Your task to perform on an android device: Open Google Chrome and click the shortcut for Amazon.com Image 0: 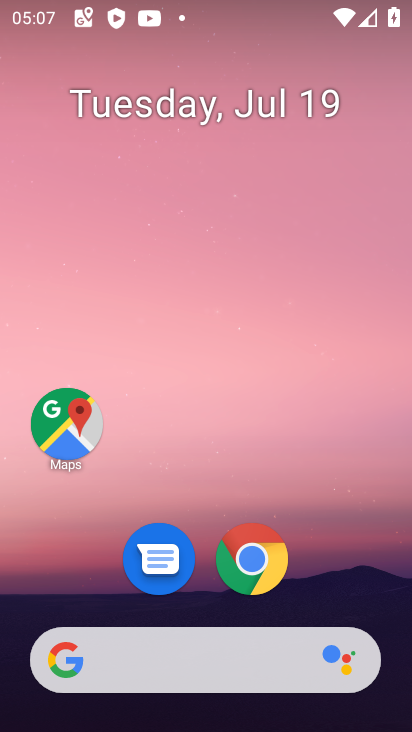
Step 0: click (252, 564)
Your task to perform on an android device: Open Google Chrome and click the shortcut for Amazon.com Image 1: 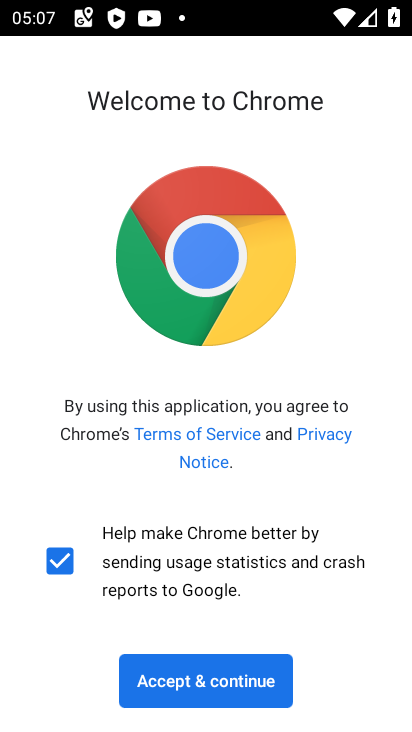
Step 1: click (214, 681)
Your task to perform on an android device: Open Google Chrome and click the shortcut for Amazon.com Image 2: 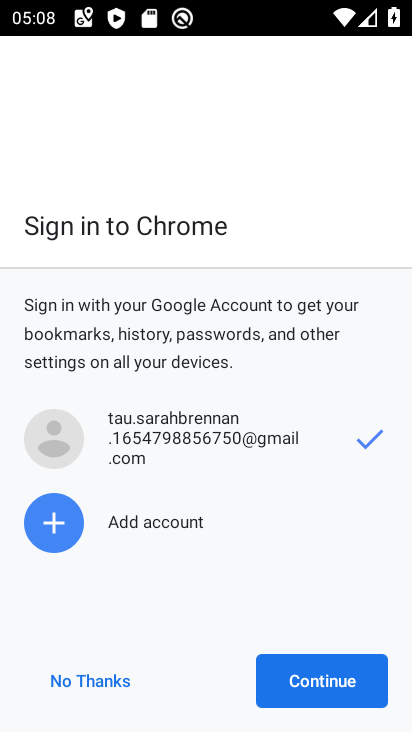
Step 2: click (313, 676)
Your task to perform on an android device: Open Google Chrome and click the shortcut for Amazon.com Image 3: 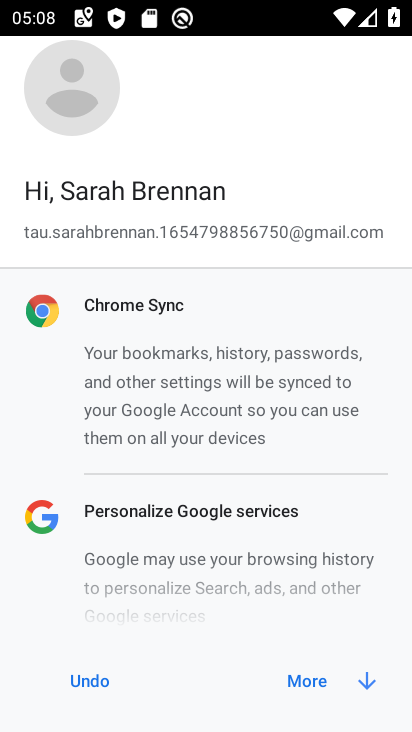
Step 3: click (314, 672)
Your task to perform on an android device: Open Google Chrome and click the shortcut for Amazon.com Image 4: 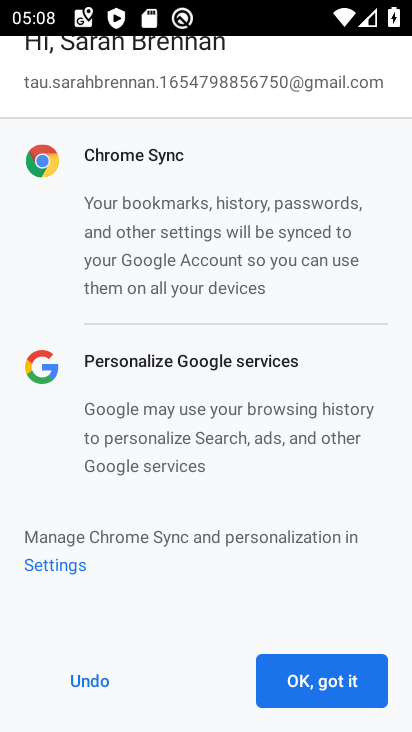
Step 4: click (310, 712)
Your task to perform on an android device: Open Google Chrome and click the shortcut for Amazon.com Image 5: 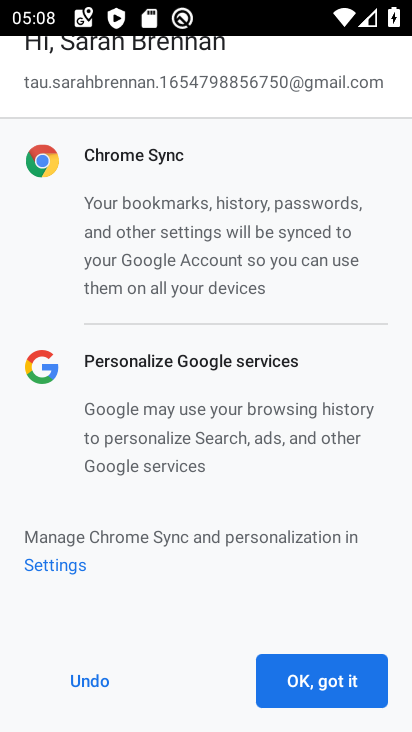
Step 5: click (310, 690)
Your task to perform on an android device: Open Google Chrome and click the shortcut for Amazon.com Image 6: 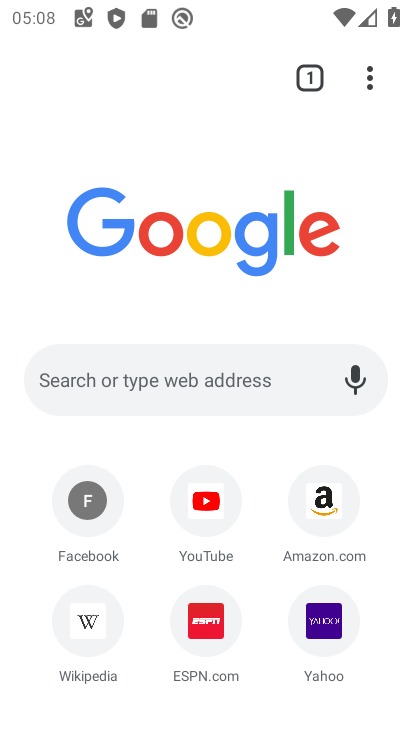
Step 6: click (313, 516)
Your task to perform on an android device: Open Google Chrome and click the shortcut for Amazon.com Image 7: 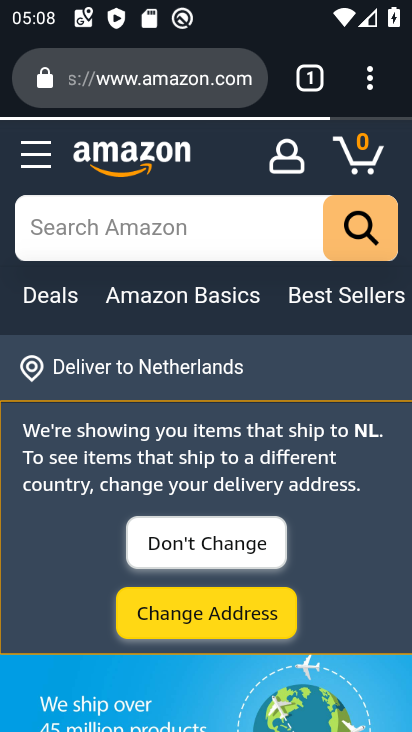
Step 7: task complete